Your task to perform on an android device: Search for Italian restaurants on Maps Image 0: 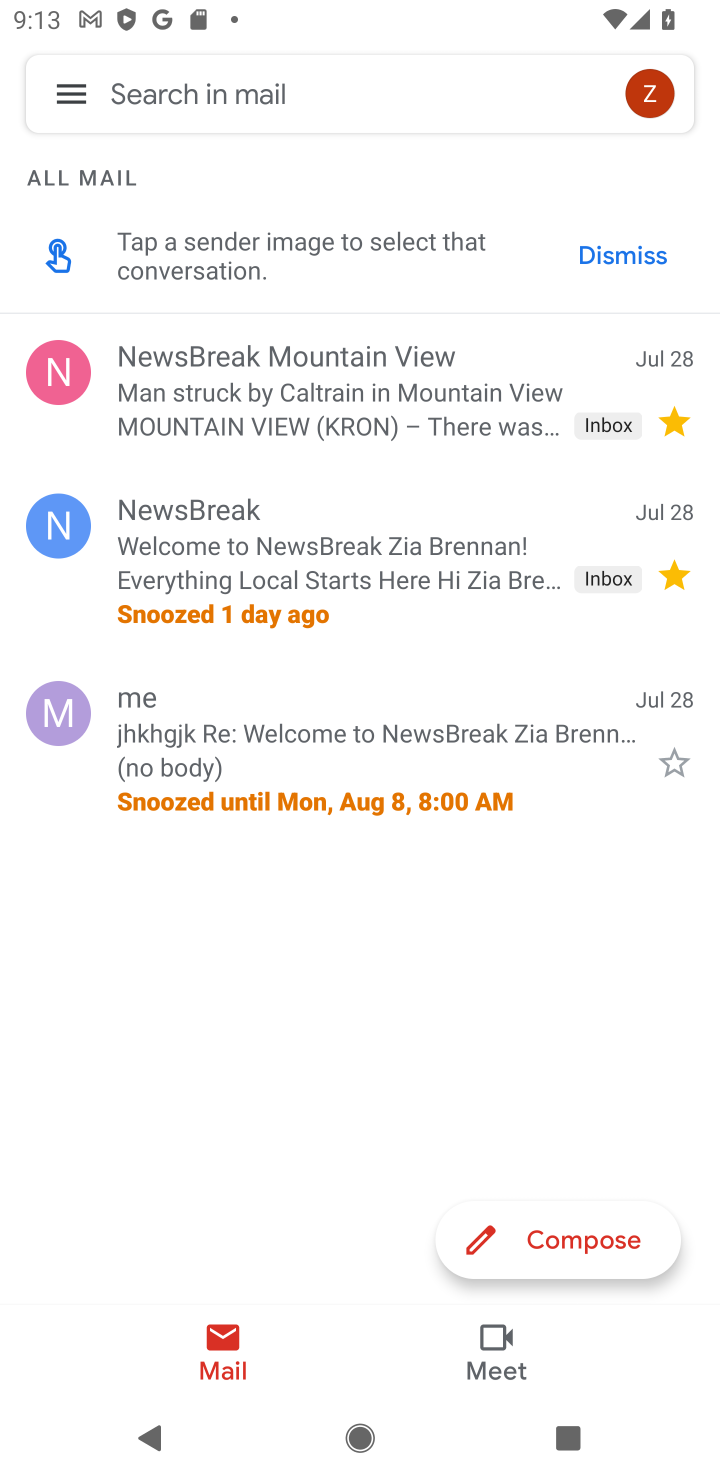
Step 0: press home button
Your task to perform on an android device: Search for Italian restaurants on Maps Image 1: 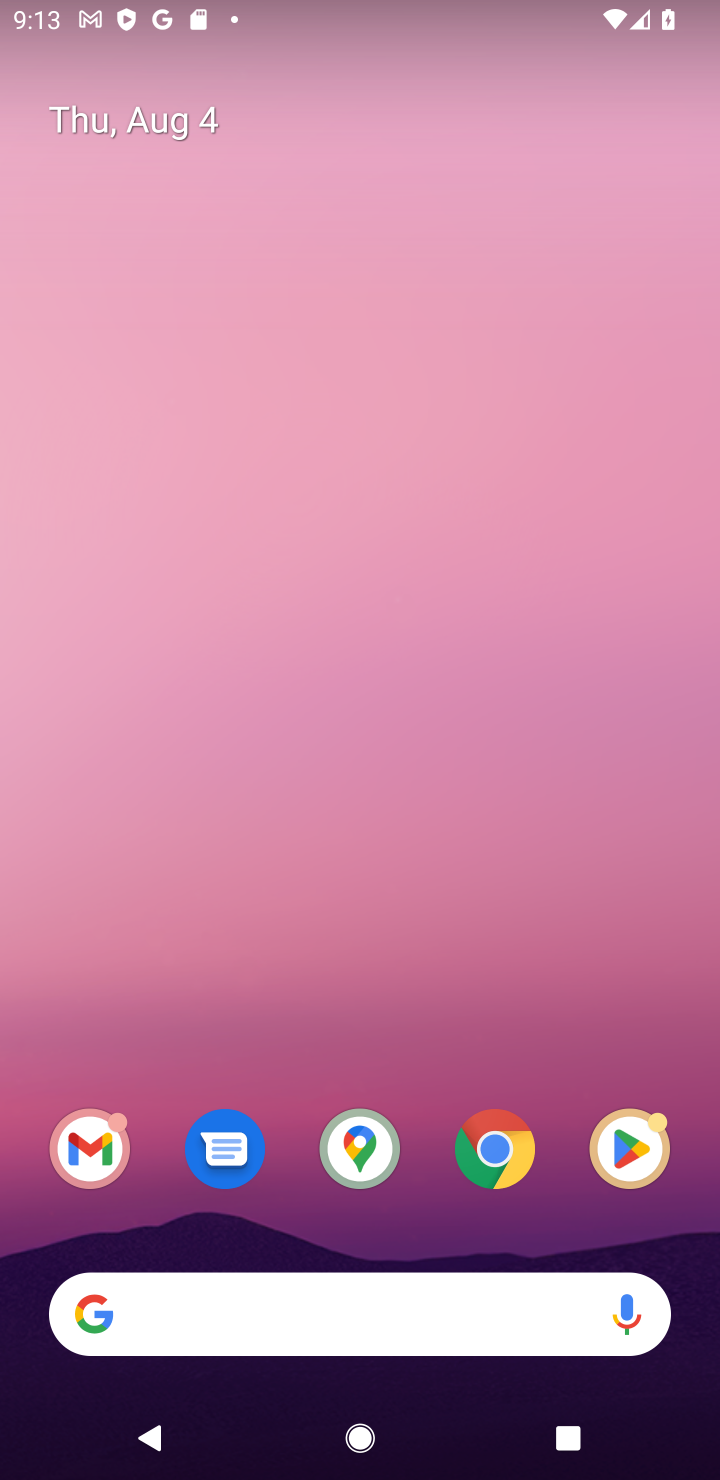
Step 1: click (351, 1152)
Your task to perform on an android device: Search for Italian restaurants on Maps Image 2: 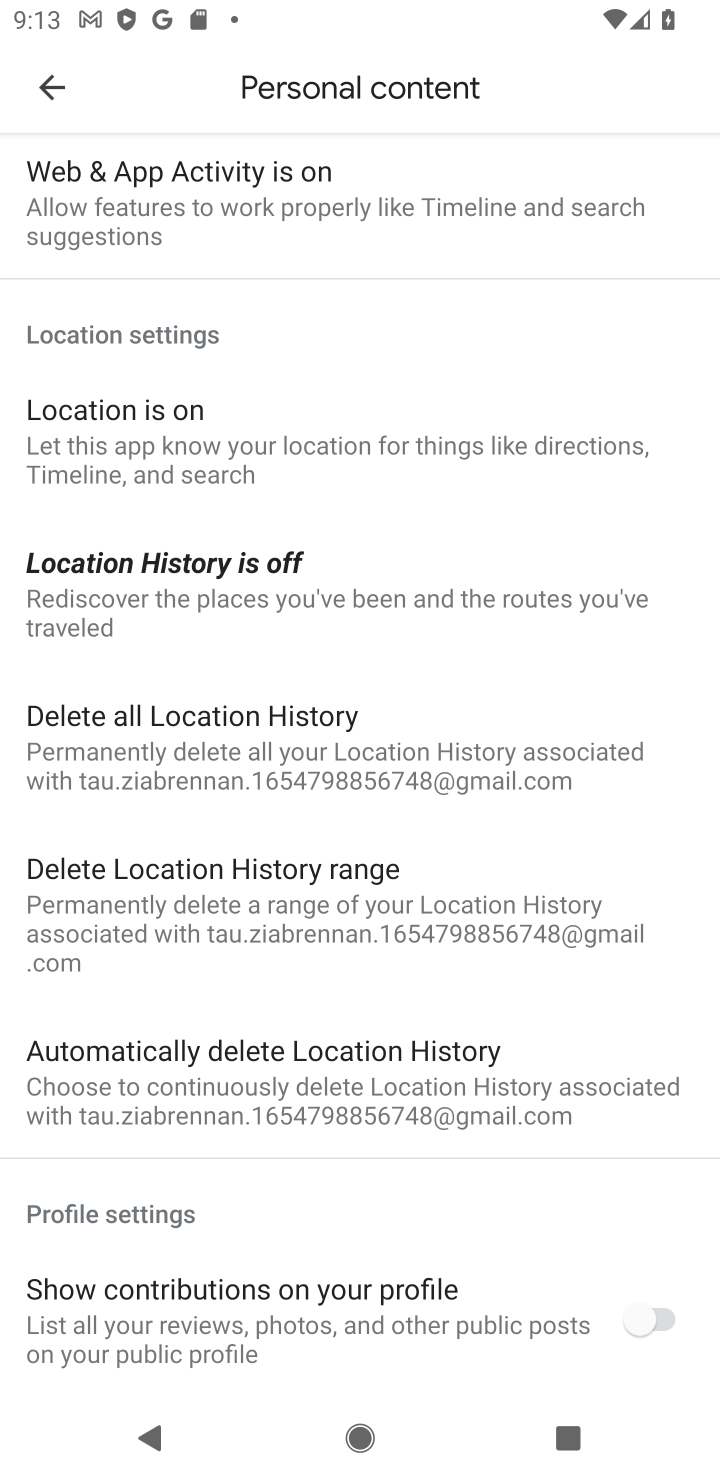
Step 2: press back button
Your task to perform on an android device: Search for Italian restaurants on Maps Image 3: 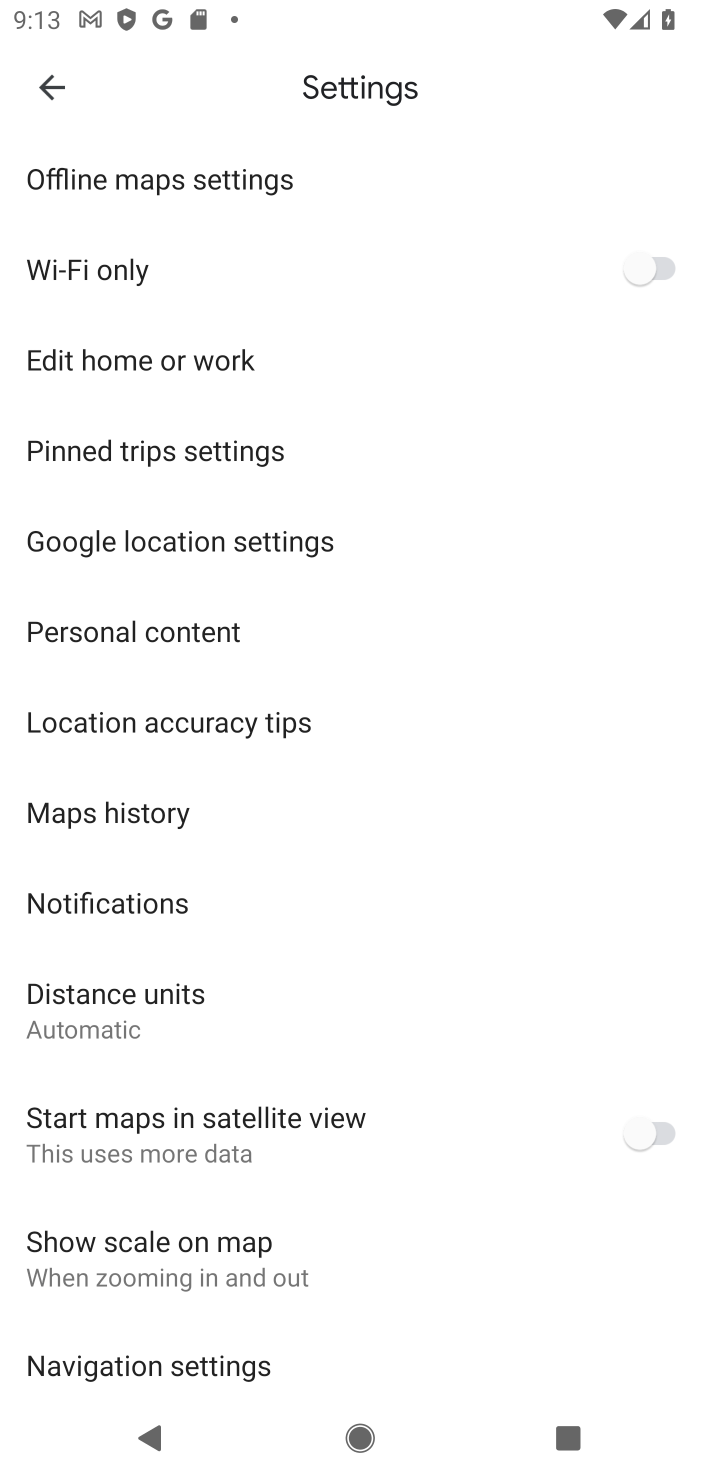
Step 3: press back button
Your task to perform on an android device: Search for Italian restaurants on Maps Image 4: 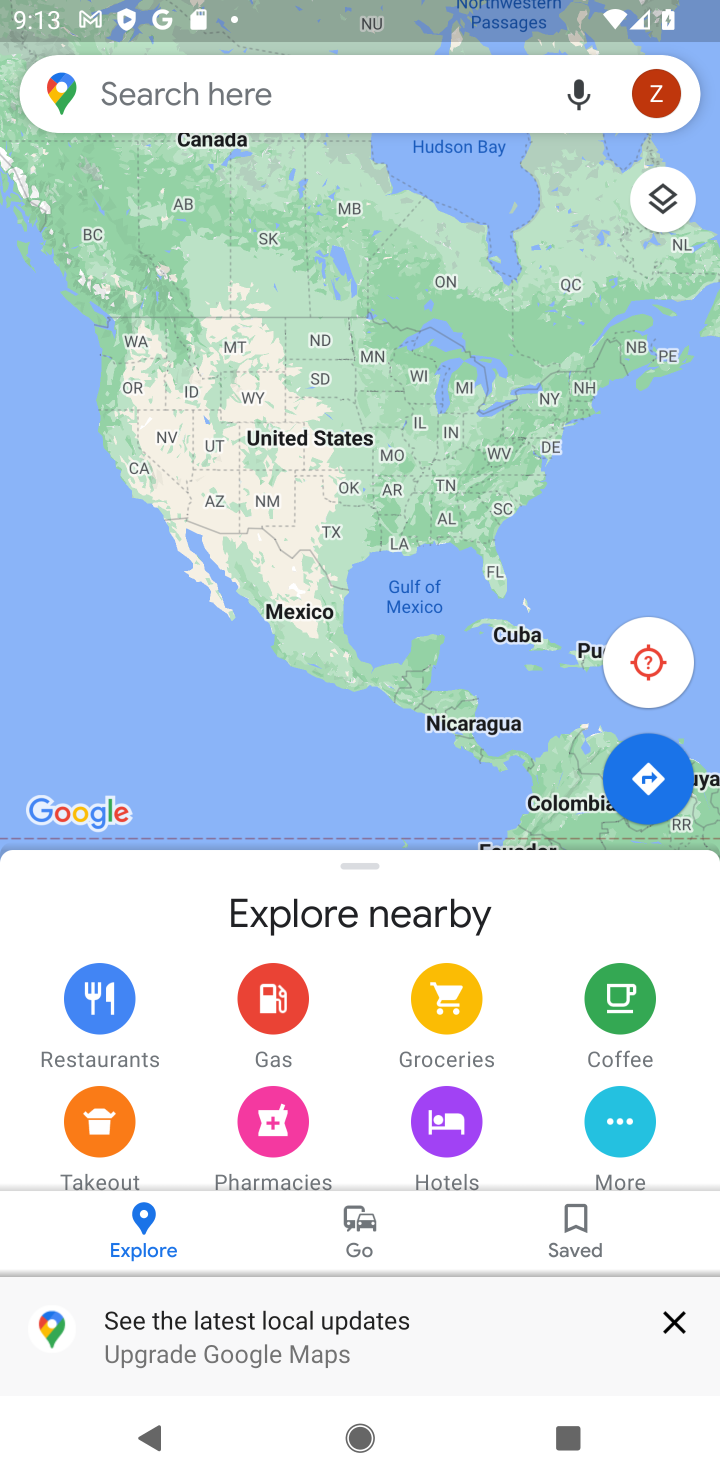
Step 4: click (233, 87)
Your task to perform on an android device: Search for Italian restaurants on Maps Image 5: 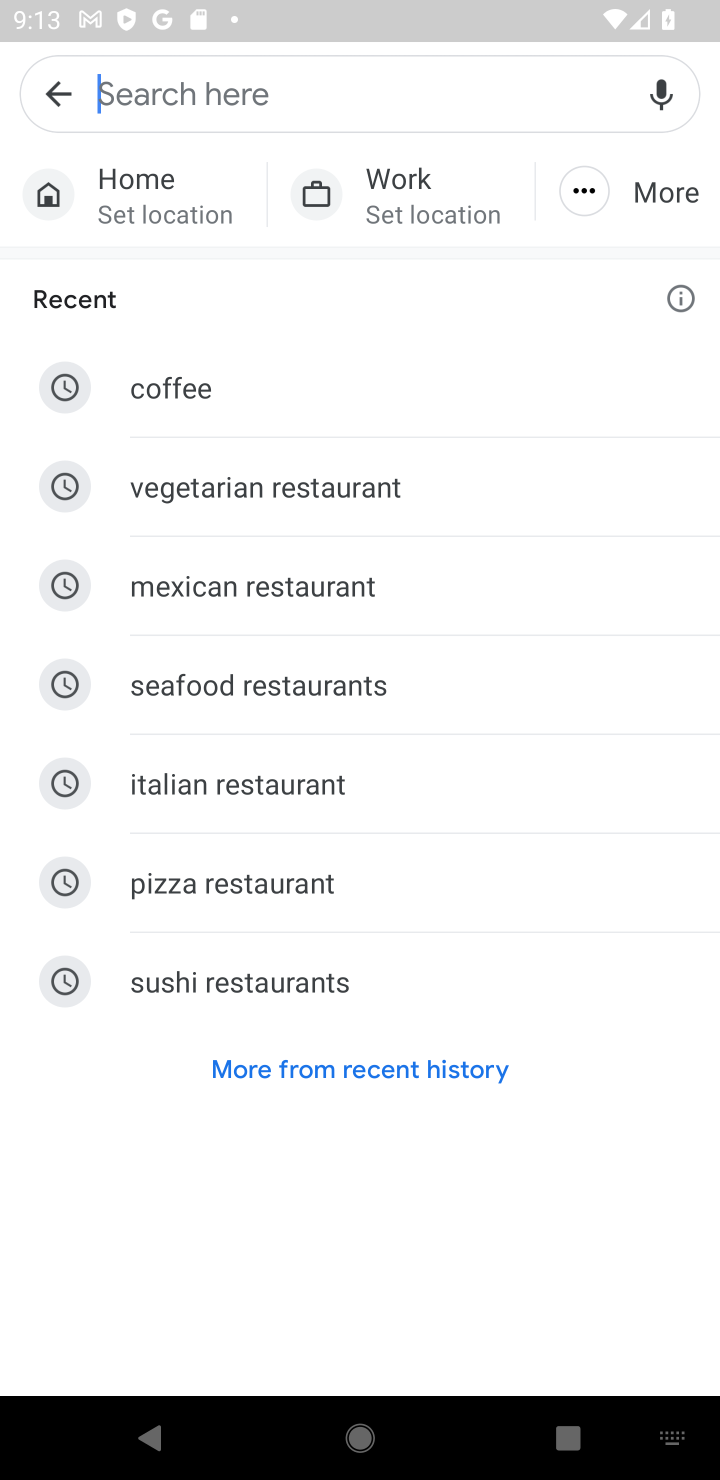
Step 5: type "italian restaurants"
Your task to perform on an android device: Search for Italian restaurants on Maps Image 6: 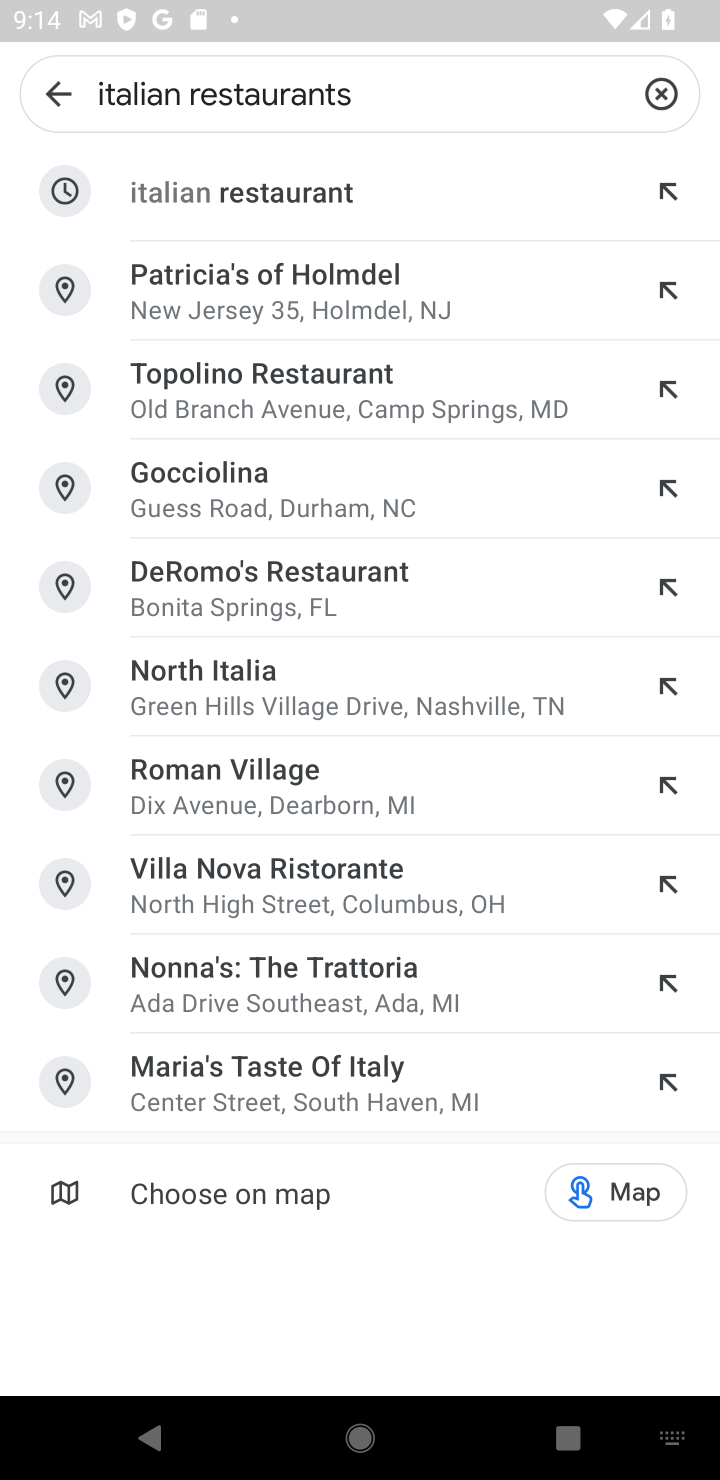
Step 6: click (238, 184)
Your task to perform on an android device: Search for Italian restaurants on Maps Image 7: 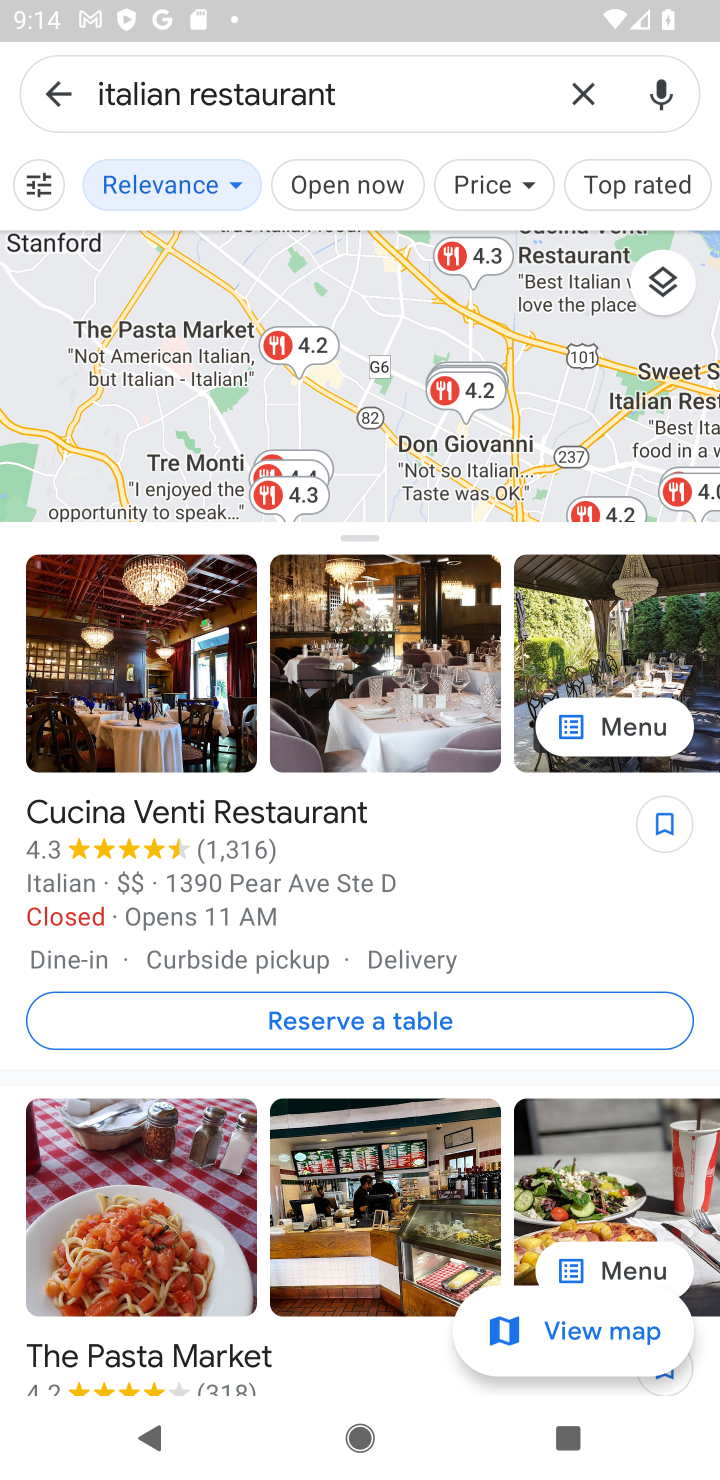
Step 7: task complete